Your task to perform on an android device: clear all cookies in the chrome app Image 0: 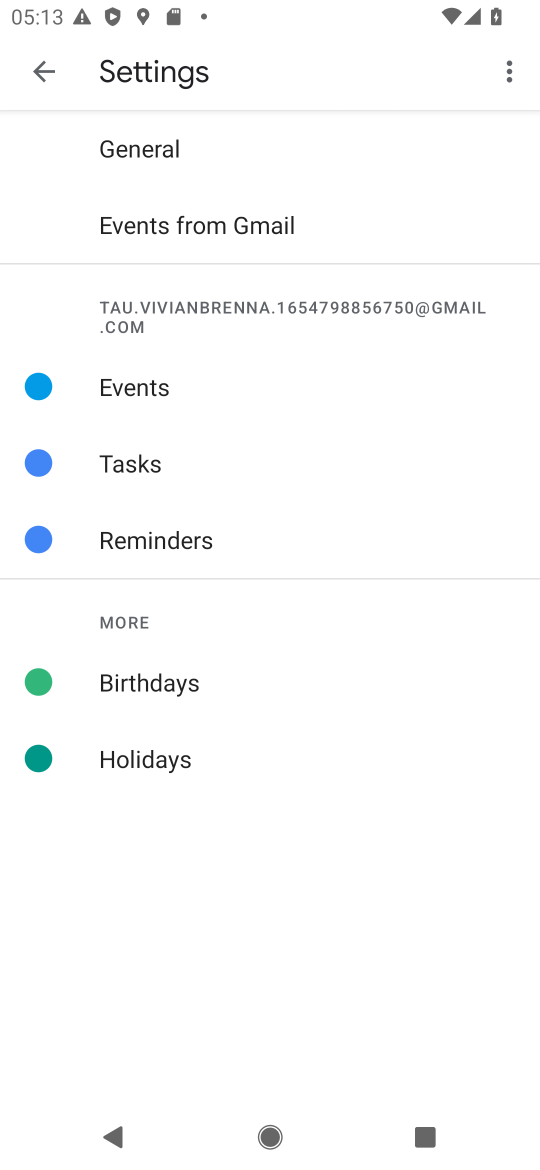
Step 0: press home button
Your task to perform on an android device: clear all cookies in the chrome app Image 1: 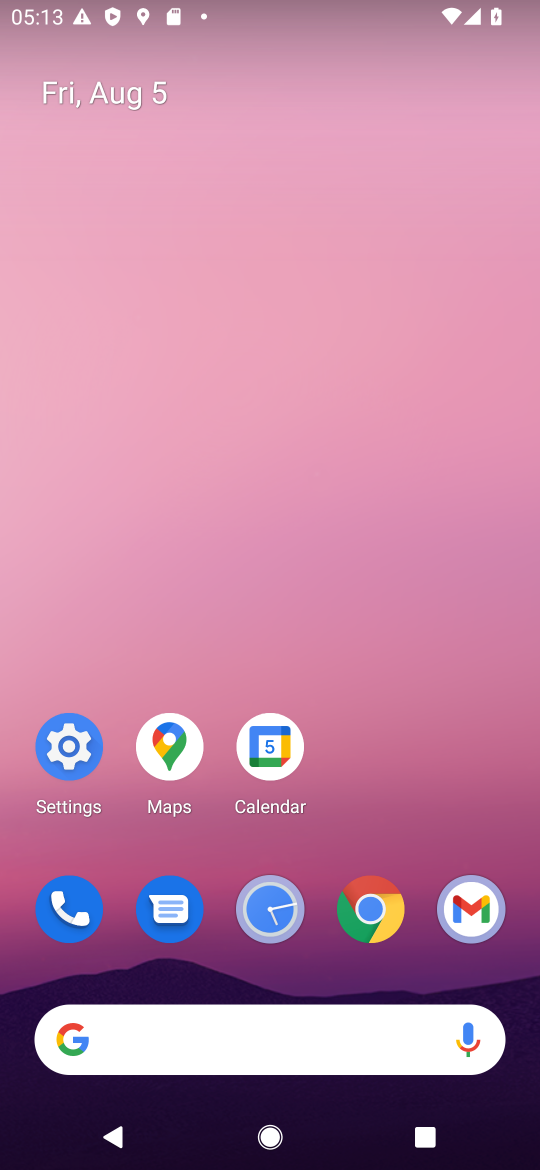
Step 1: click (368, 911)
Your task to perform on an android device: clear all cookies in the chrome app Image 2: 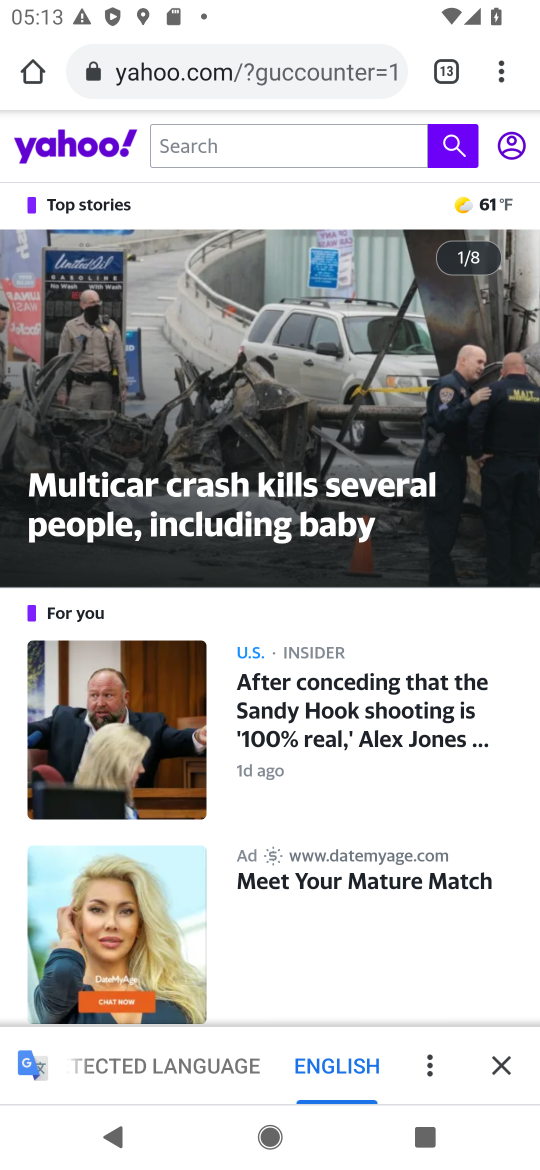
Step 2: click (509, 67)
Your task to perform on an android device: clear all cookies in the chrome app Image 3: 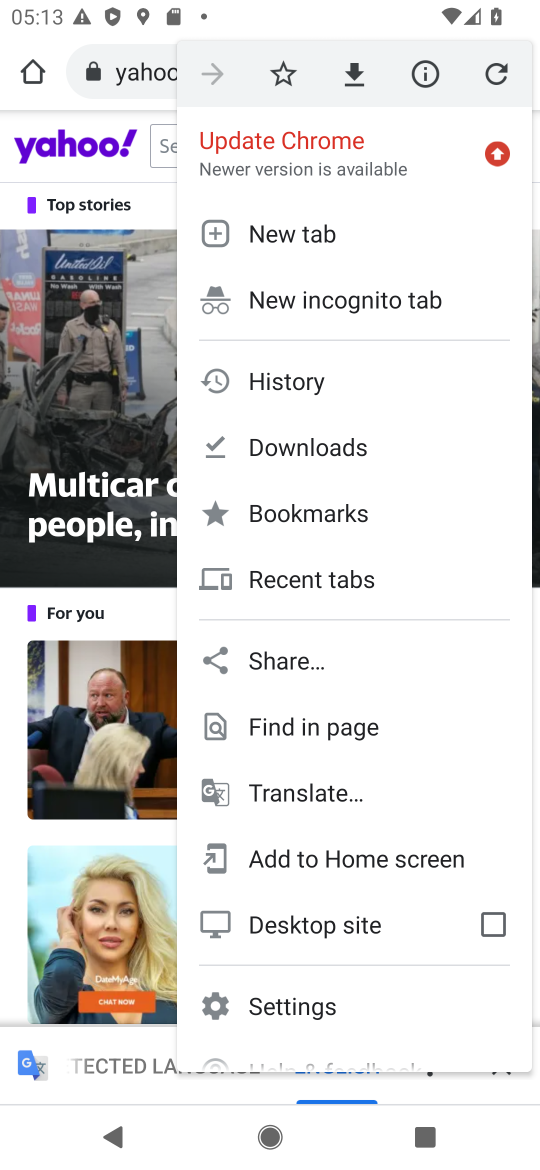
Step 3: click (279, 384)
Your task to perform on an android device: clear all cookies in the chrome app Image 4: 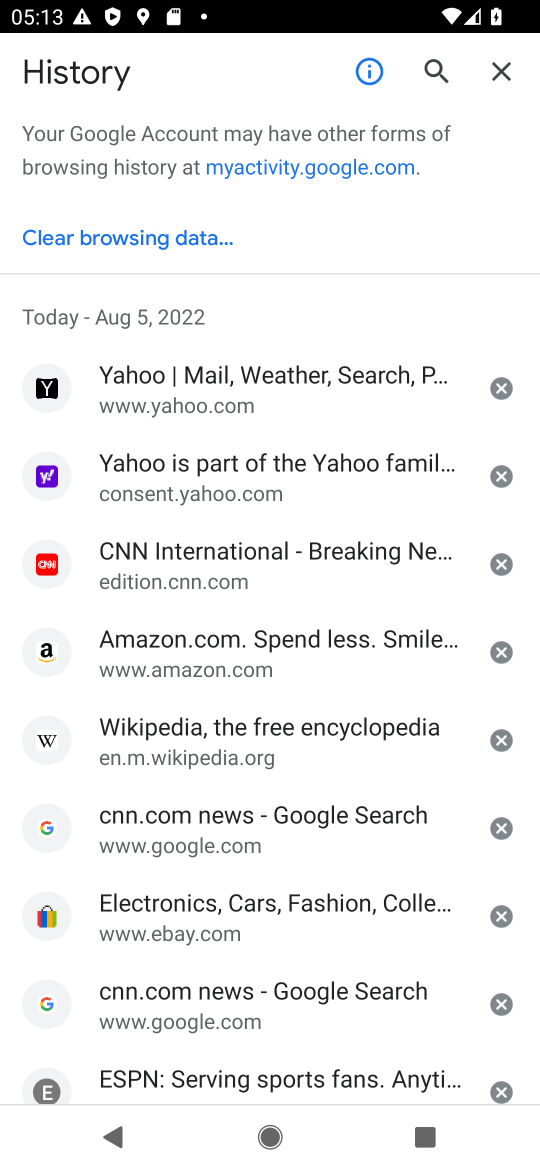
Step 4: click (93, 234)
Your task to perform on an android device: clear all cookies in the chrome app Image 5: 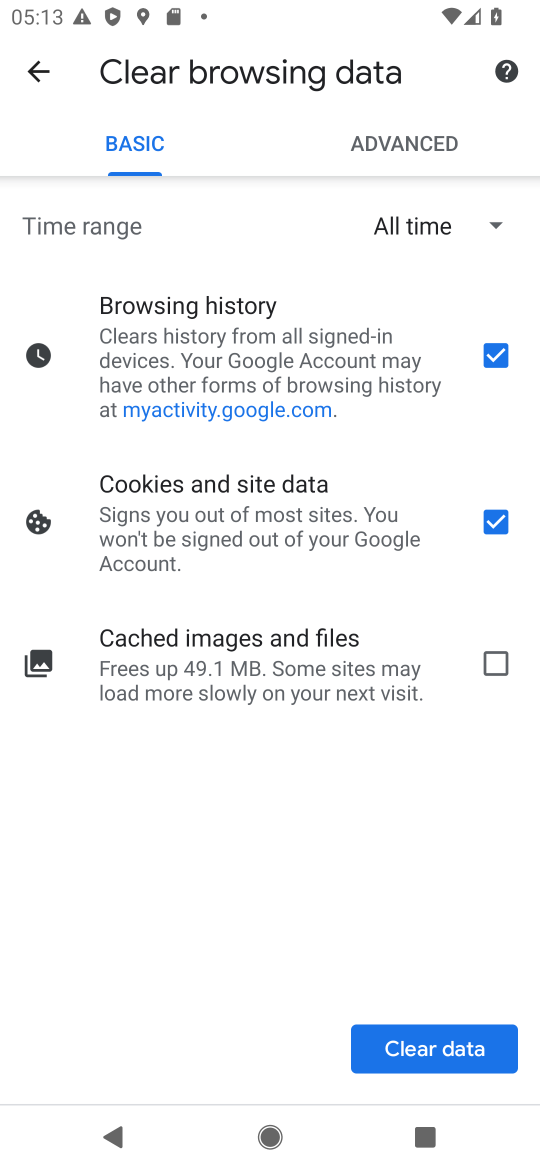
Step 5: click (505, 354)
Your task to perform on an android device: clear all cookies in the chrome app Image 6: 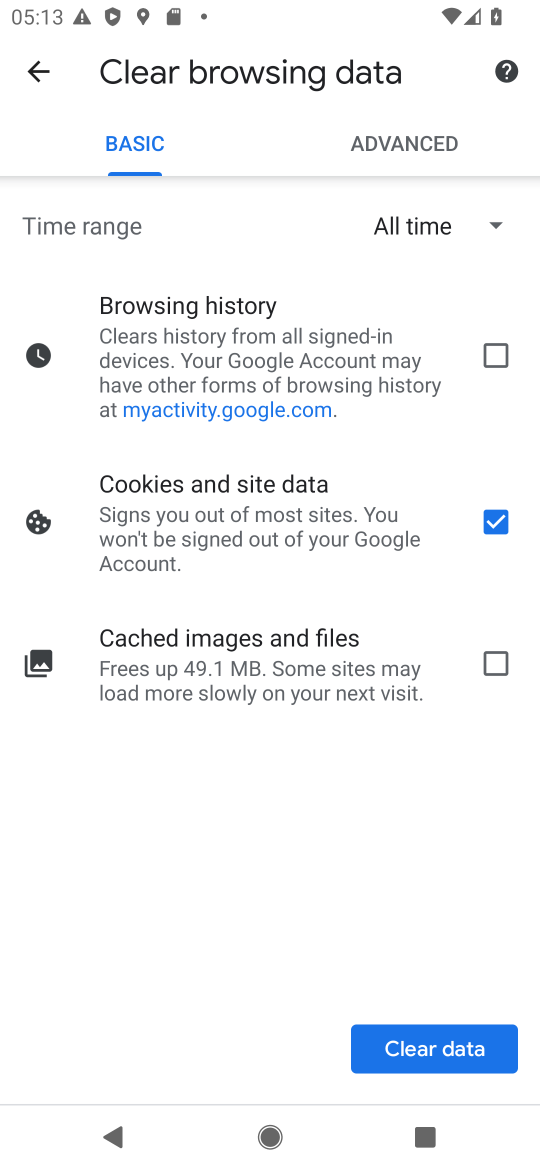
Step 6: click (445, 1045)
Your task to perform on an android device: clear all cookies in the chrome app Image 7: 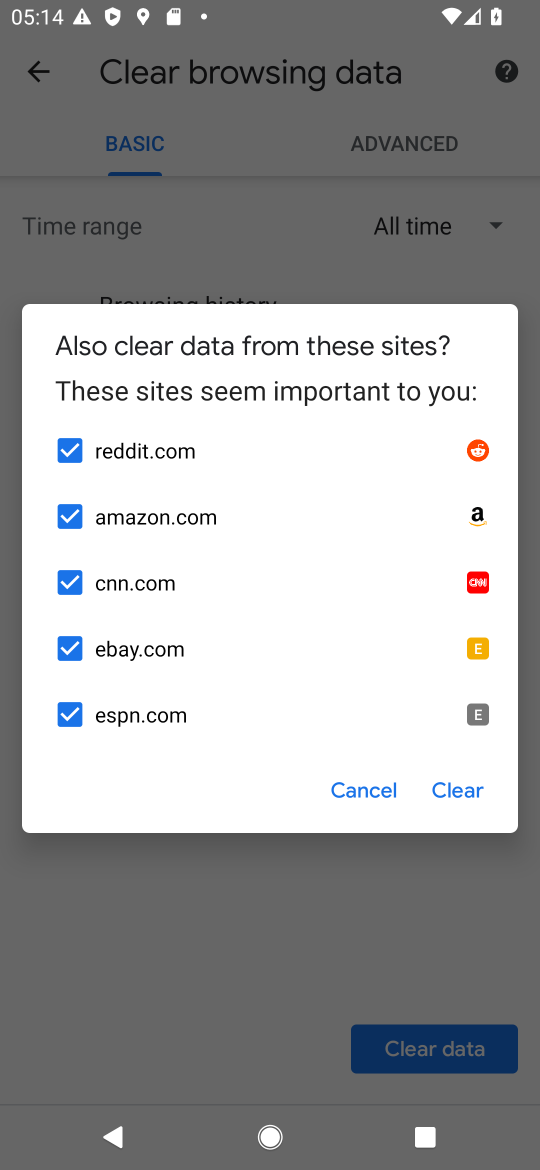
Step 7: click (454, 791)
Your task to perform on an android device: clear all cookies in the chrome app Image 8: 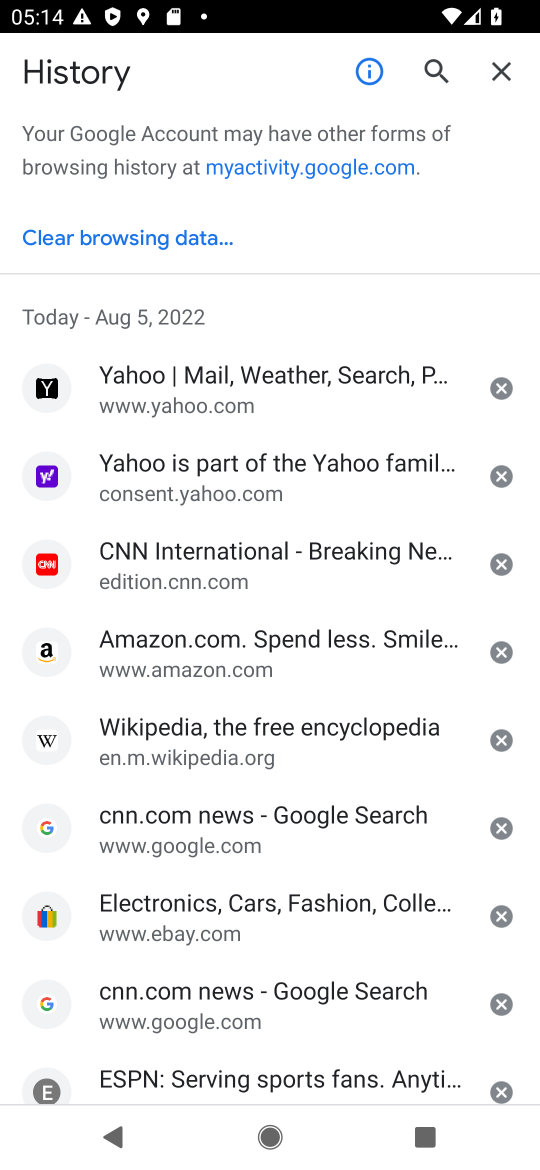
Step 8: task complete